Your task to perform on an android device: delete browsing data in the chrome app Image 0: 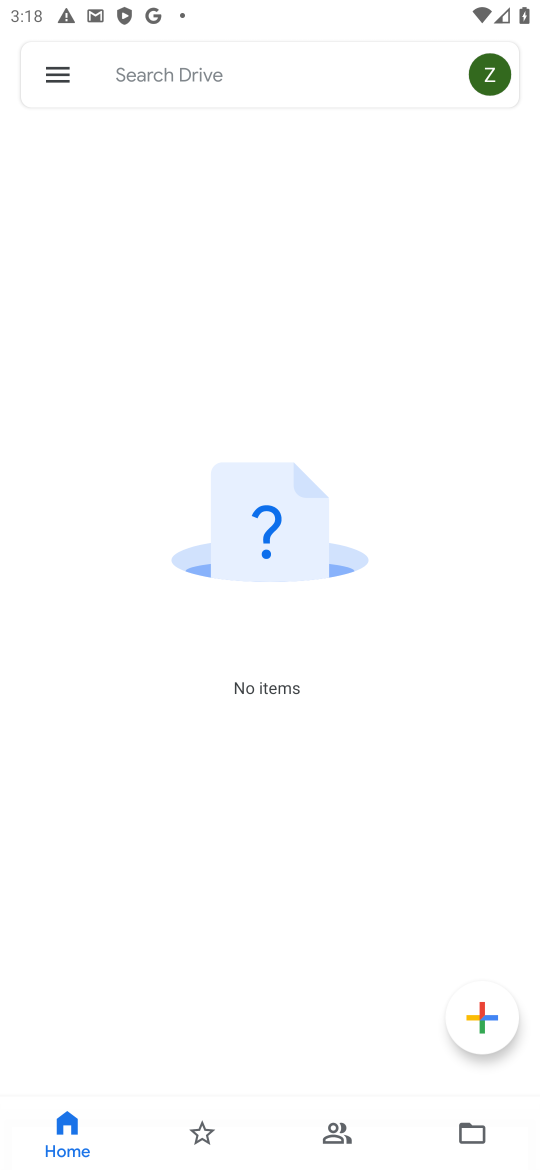
Step 0: press back button
Your task to perform on an android device: delete browsing data in the chrome app Image 1: 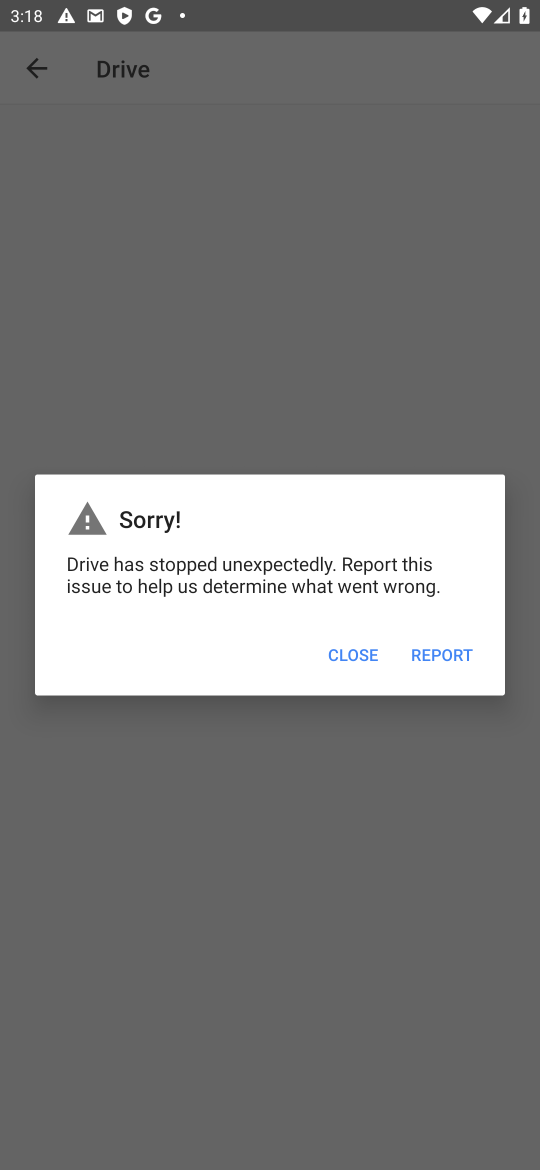
Step 1: press home button
Your task to perform on an android device: delete browsing data in the chrome app Image 2: 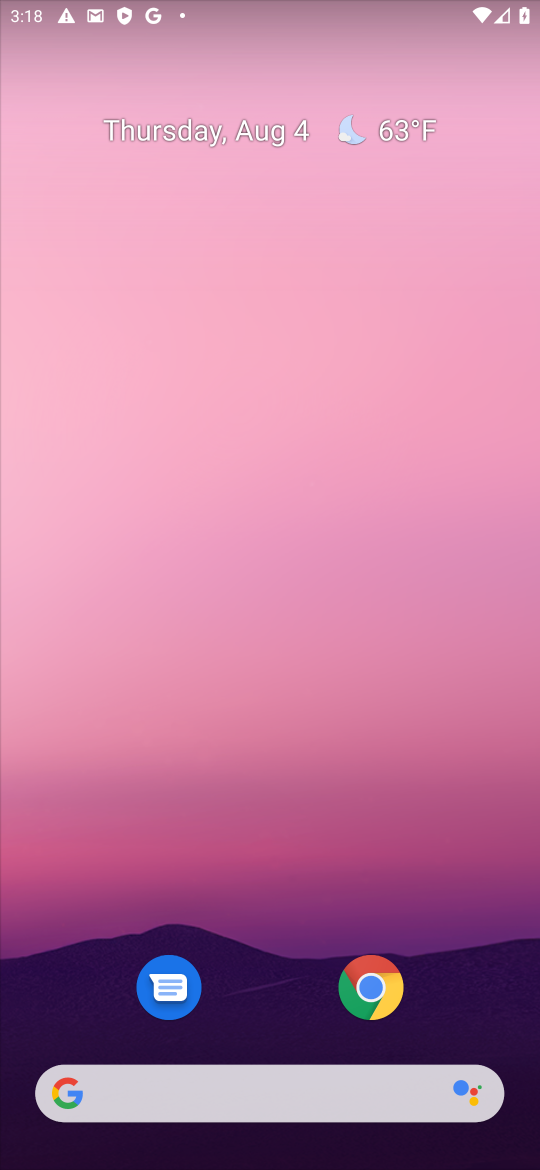
Step 2: click (365, 1011)
Your task to perform on an android device: delete browsing data in the chrome app Image 3: 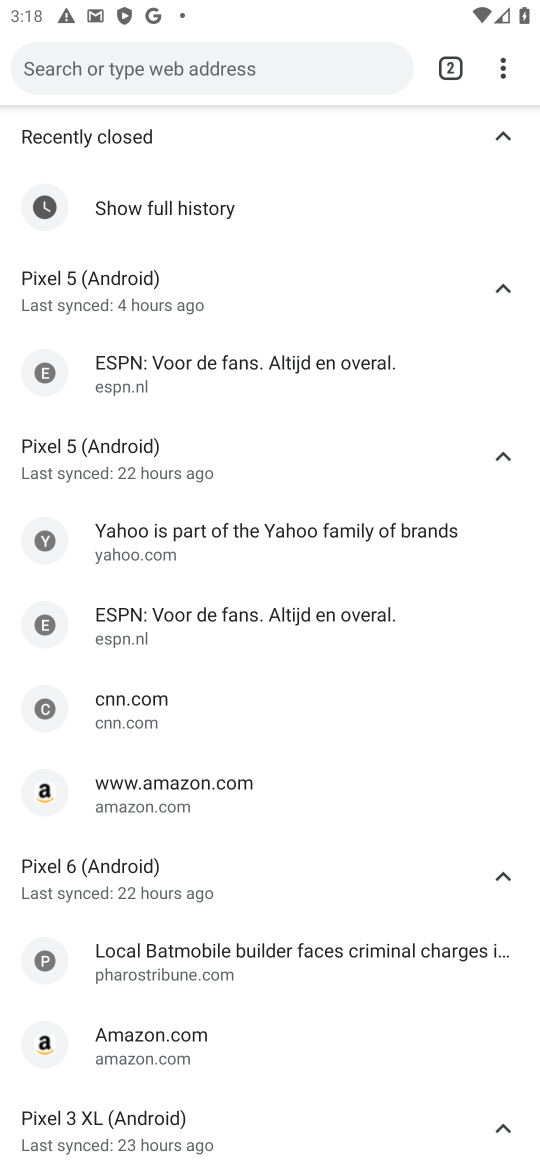
Step 3: click (503, 64)
Your task to perform on an android device: delete browsing data in the chrome app Image 4: 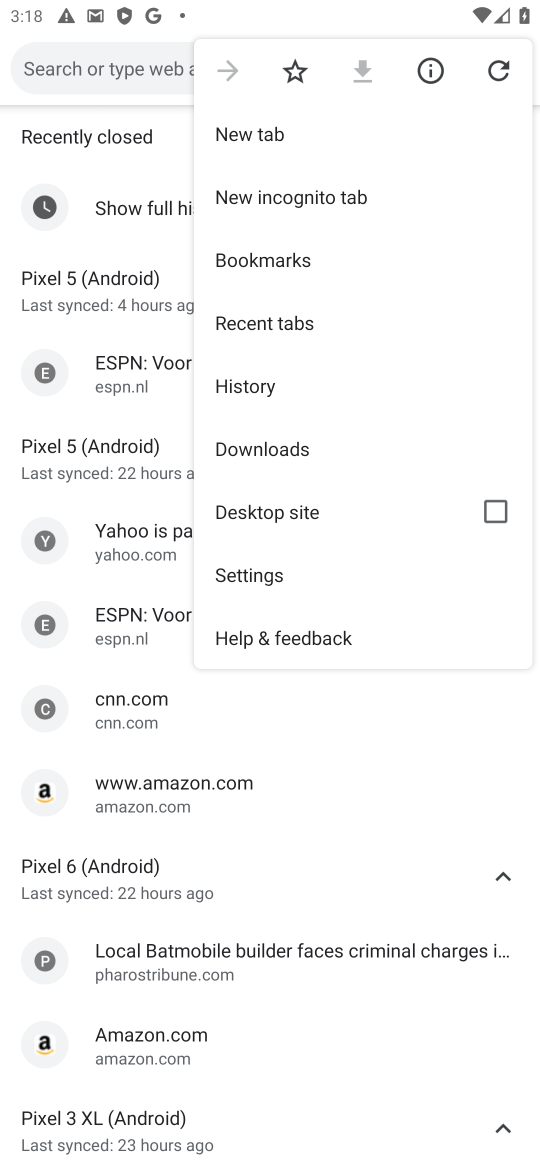
Step 4: click (227, 384)
Your task to perform on an android device: delete browsing data in the chrome app Image 5: 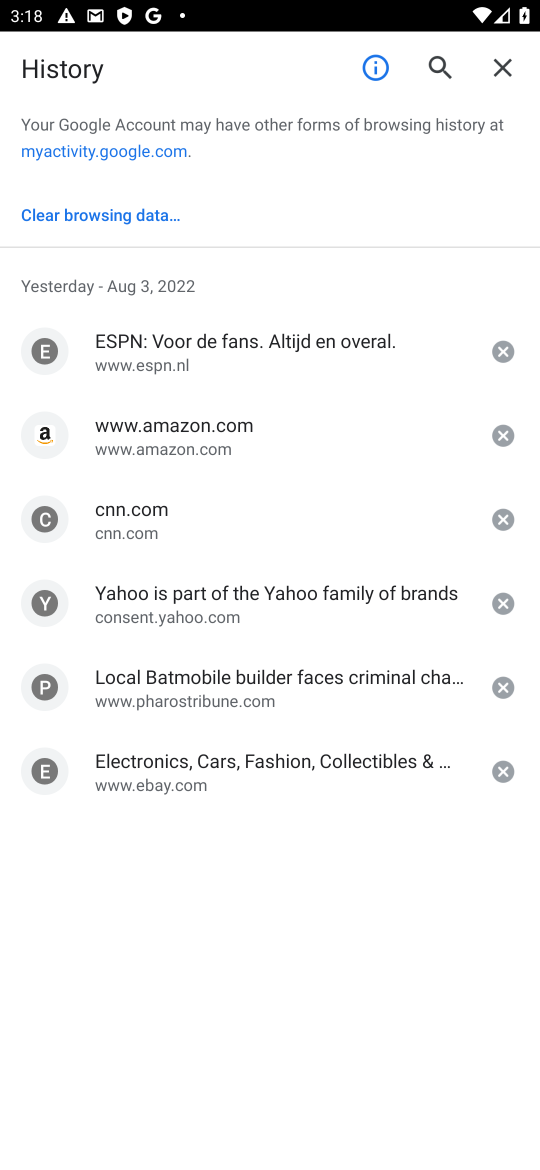
Step 5: click (138, 213)
Your task to perform on an android device: delete browsing data in the chrome app Image 6: 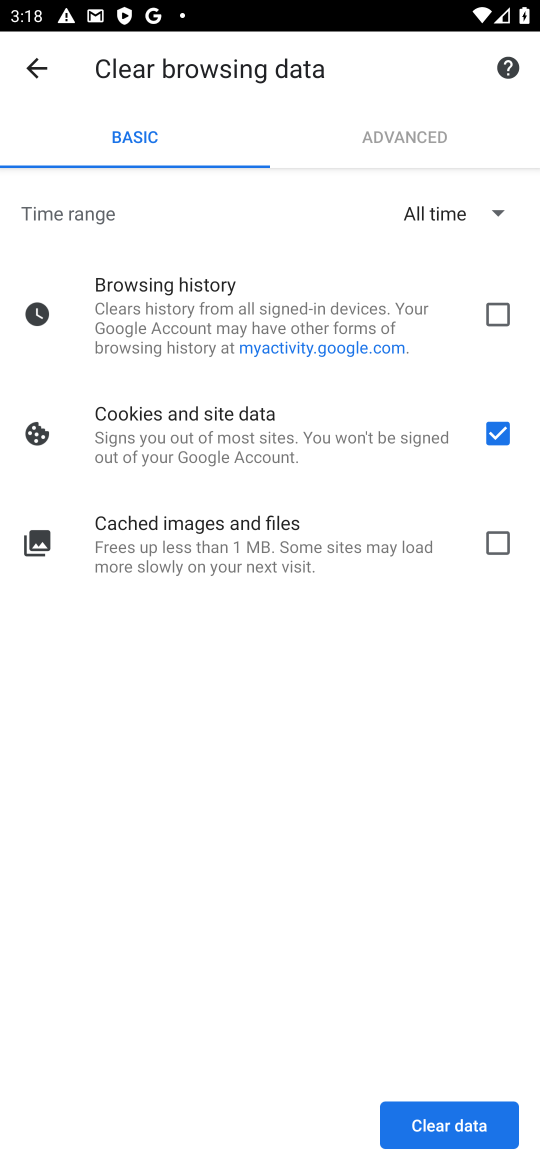
Step 6: click (496, 318)
Your task to perform on an android device: delete browsing data in the chrome app Image 7: 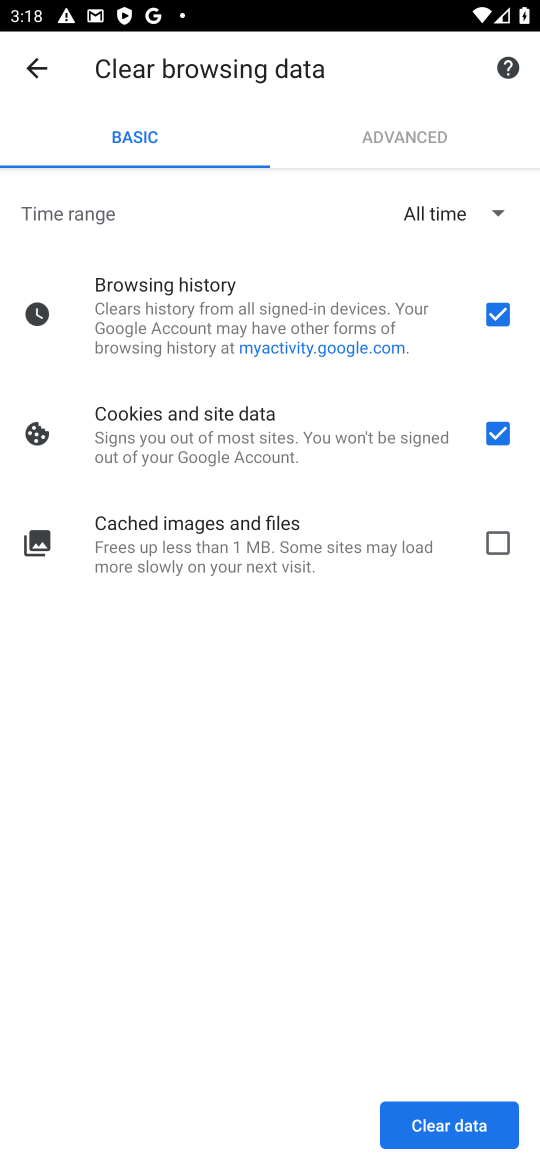
Step 7: click (503, 549)
Your task to perform on an android device: delete browsing data in the chrome app Image 8: 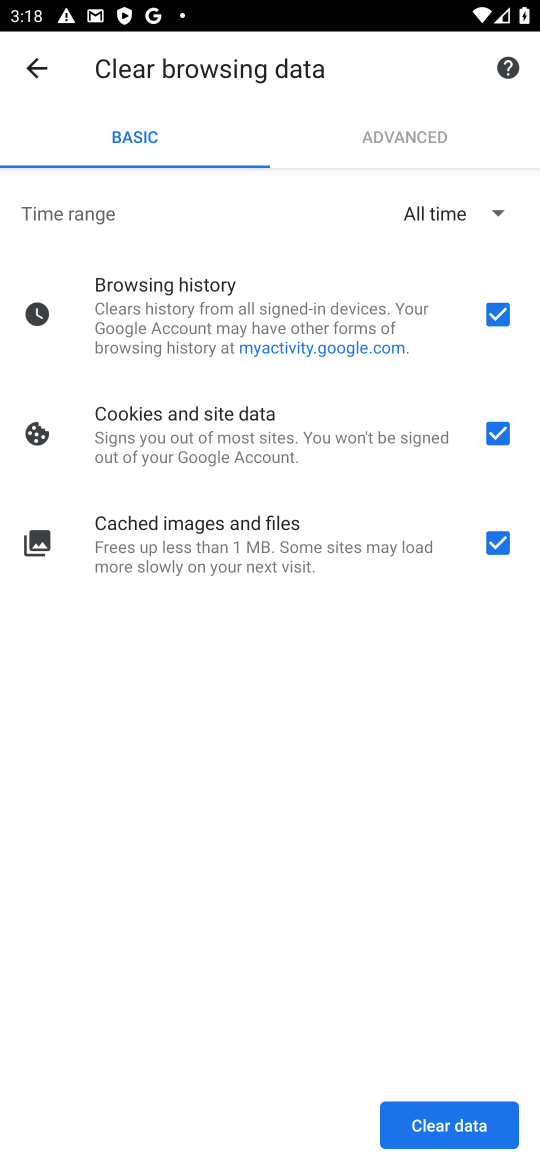
Step 8: click (461, 1121)
Your task to perform on an android device: delete browsing data in the chrome app Image 9: 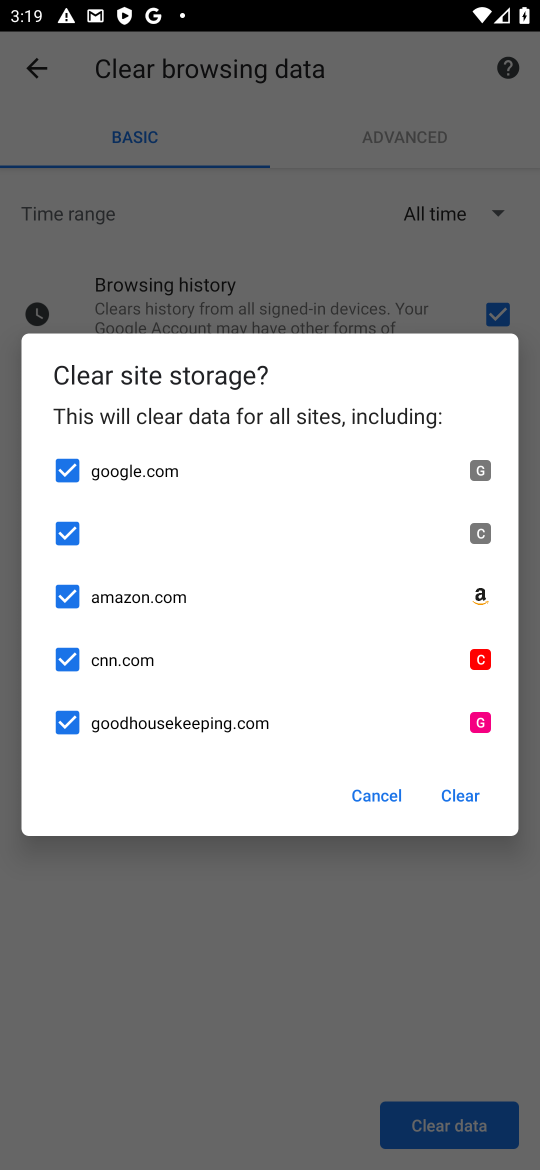
Step 9: click (453, 790)
Your task to perform on an android device: delete browsing data in the chrome app Image 10: 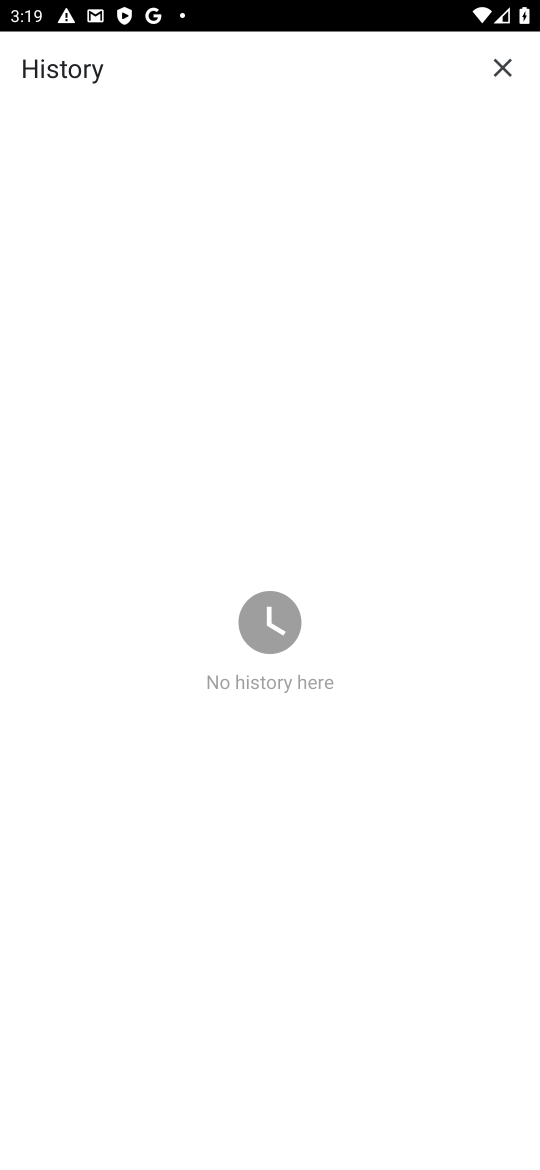
Step 10: task complete